Your task to perform on an android device: change the clock display to show seconds Image 0: 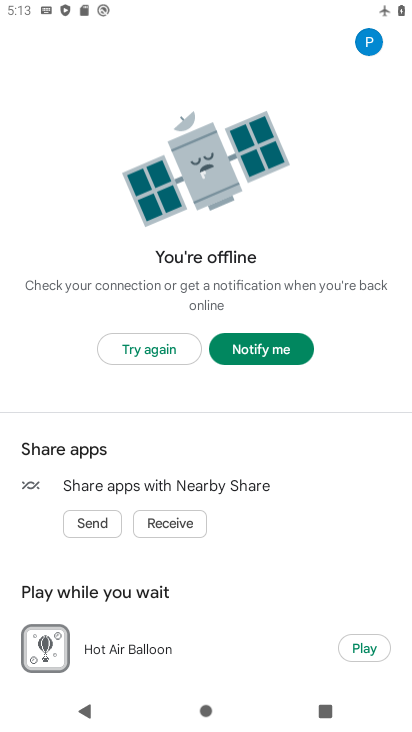
Step 0: press home button
Your task to perform on an android device: change the clock display to show seconds Image 1: 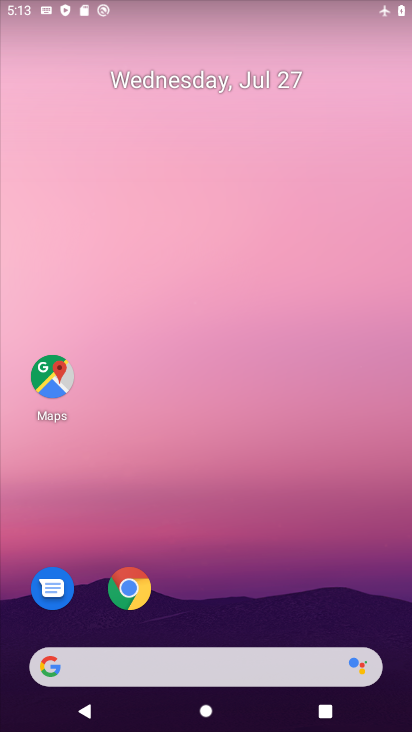
Step 1: drag from (266, 662) to (389, 488)
Your task to perform on an android device: change the clock display to show seconds Image 2: 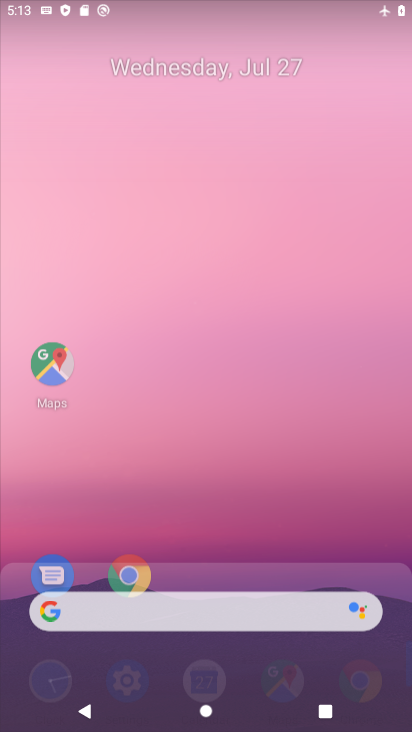
Step 2: click (201, 371)
Your task to perform on an android device: change the clock display to show seconds Image 3: 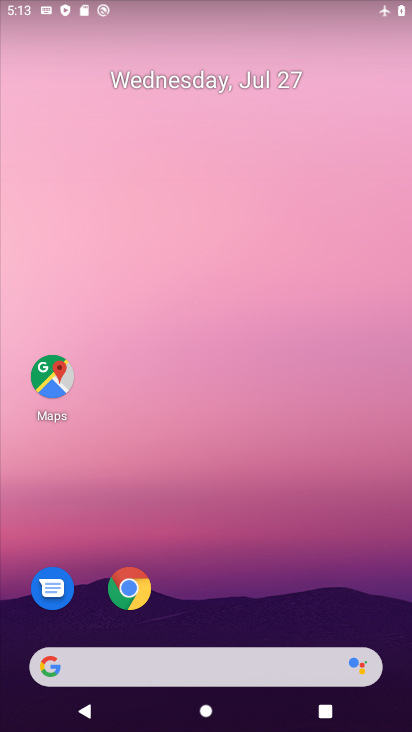
Step 3: drag from (271, 619) to (323, 134)
Your task to perform on an android device: change the clock display to show seconds Image 4: 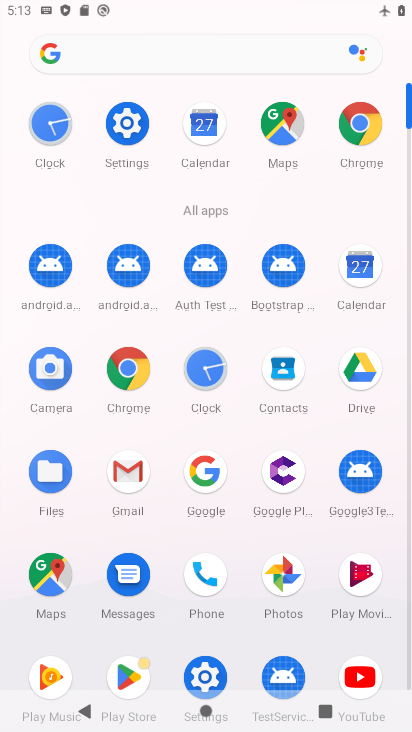
Step 4: click (201, 373)
Your task to perform on an android device: change the clock display to show seconds Image 5: 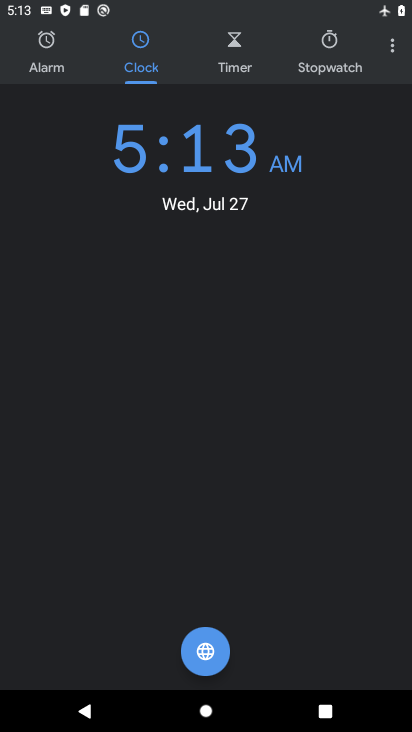
Step 5: click (388, 42)
Your task to perform on an android device: change the clock display to show seconds Image 6: 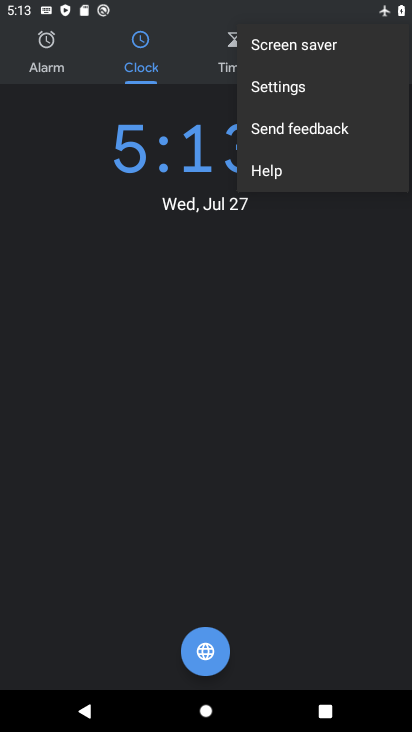
Step 6: click (274, 80)
Your task to perform on an android device: change the clock display to show seconds Image 7: 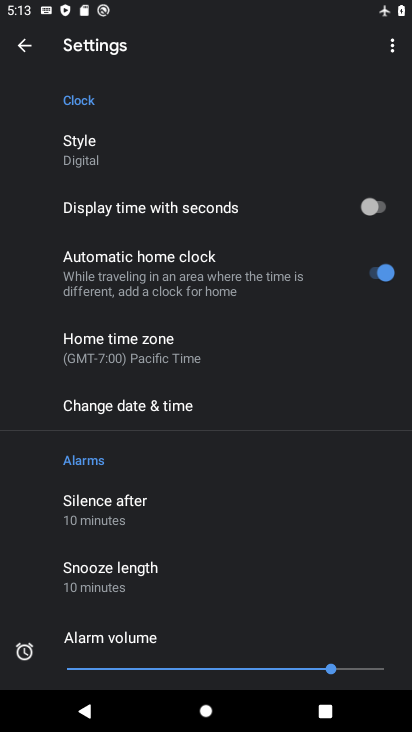
Step 7: click (382, 209)
Your task to perform on an android device: change the clock display to show seconds Image 8: 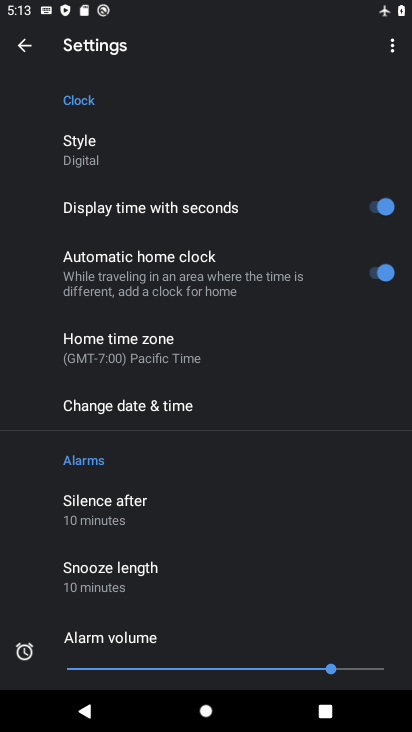
Step 8: task complete